Your task to perform on an android device: set an alarm Image 0: 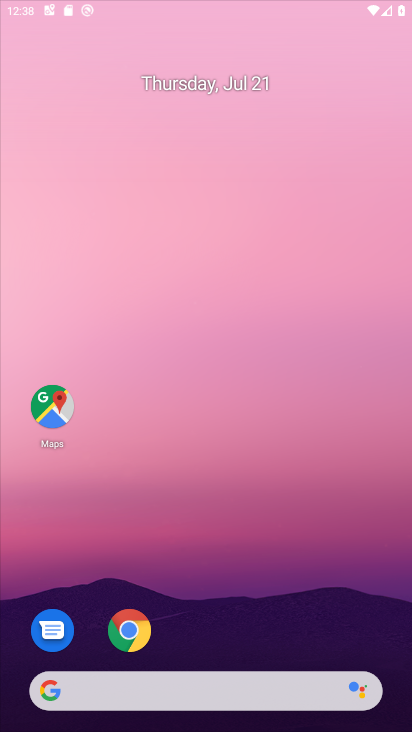
Step 0: drag from (191, 610) to (242, 187)
Your task to perform on an android device: set an alarm Image 1: 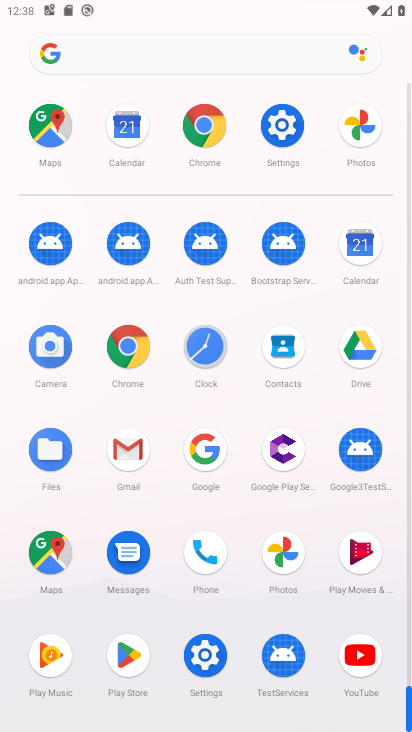
Step 1: click (191, 361)
Your task to perform on an android device: set an alarm Image 2: 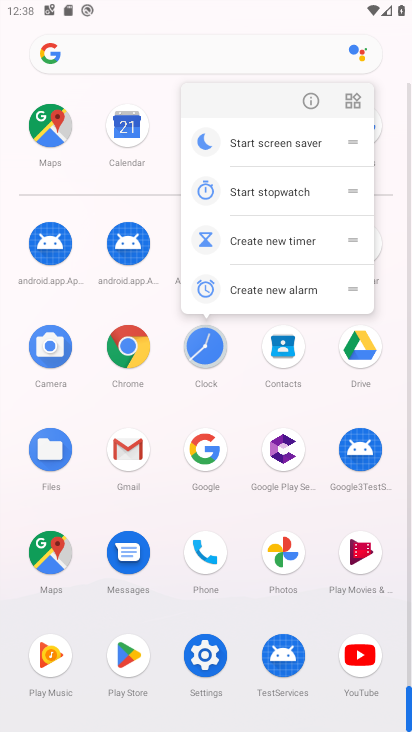
Step 2: click (308, 108)
Your task to perform on an android device: set an alarm Image 3: 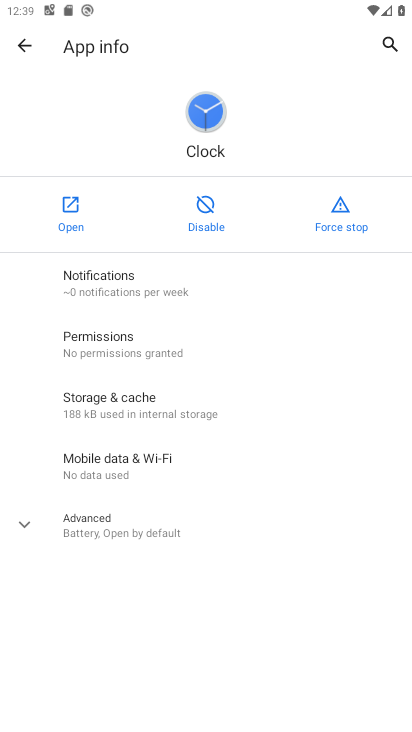
Step 3: click (65, 206)
Your task to perform on an android device: set an alarm Image 4: 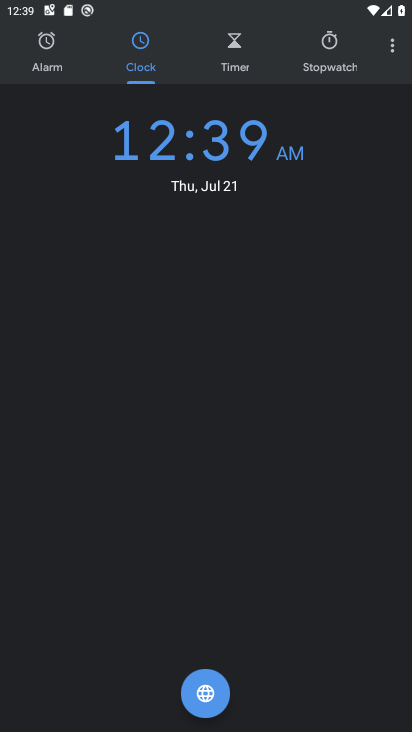
Step 4: click (56, 26)
Your task to perform on an android device: set an alarm Image 5: 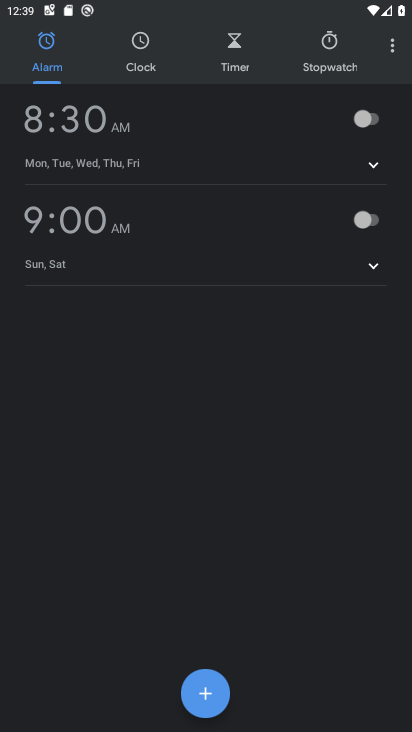
Step 5: click (362, 110)
Your task to perform on an android device: set an alarm Image 6: 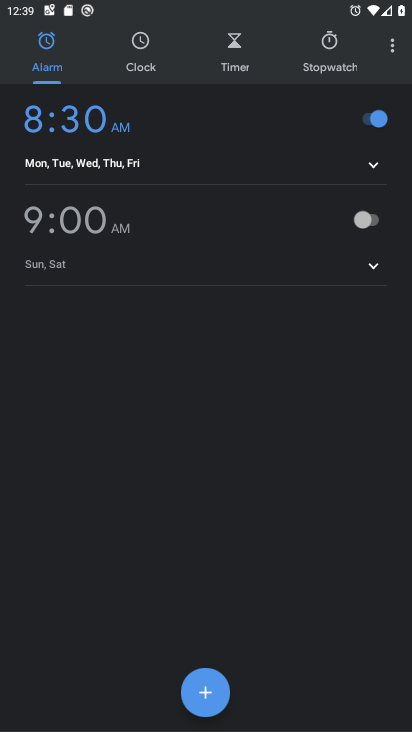
Step 6: task complete